Your task to perform on an android device: Go to accessibility settings Image 0: 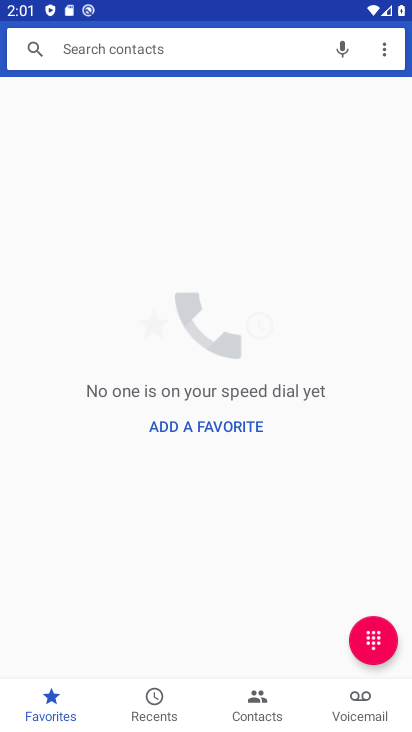
Step 0: press home button
Your task to perform on an android device: Go to accessibility settings Image 1: 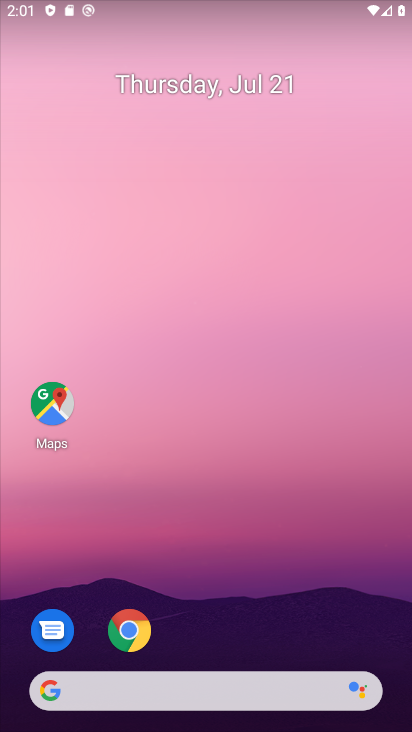
Step 1: click (376, 544)
Your task to perform on an android device: Go to accessibility settings Image 2: 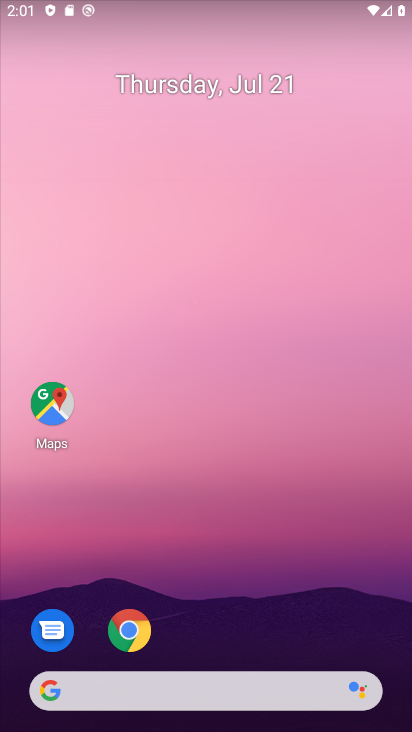
Step 2: click (376, 544)
Your task to perform on an android device: Go to accessibility settings Image 3: 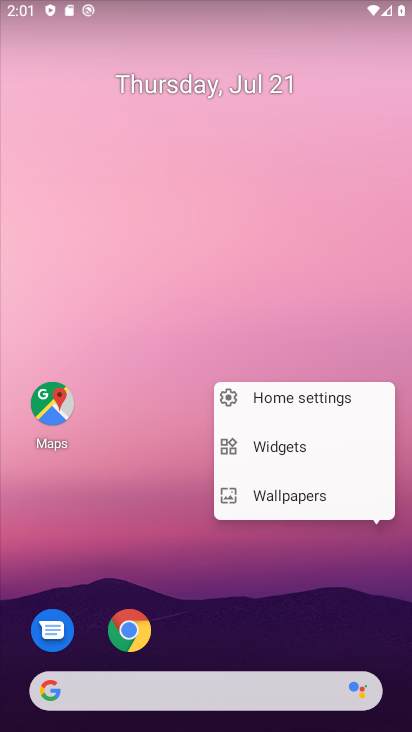
Step 3: drag from (375, 545) to (250, 2)
Your task to perform on an android device: Go to accessibility settings Image 4: 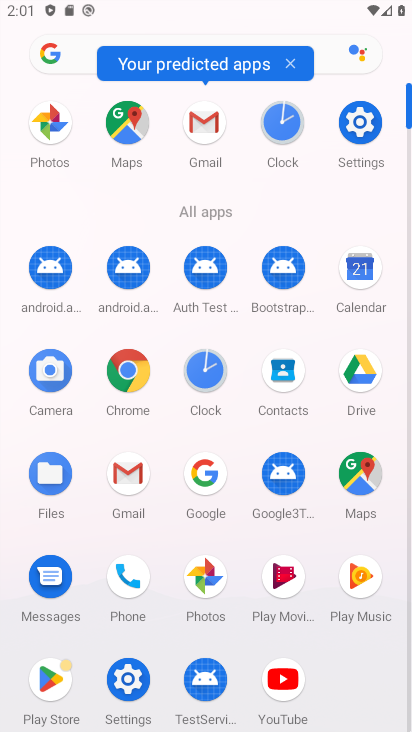
Step 4: click (128, 691)
Your task to perform on an android device: Go to accessibility settings Image 5: 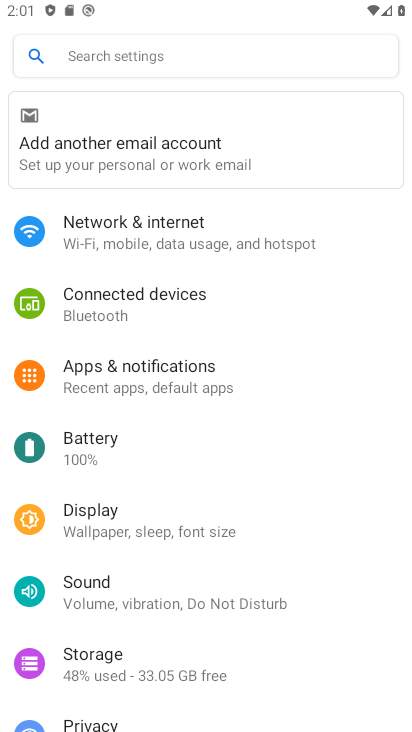
Step 5: drag from (128, 691) to (244, 374)
Your task to perform on an android device: Go to accessibility settings Image 6: 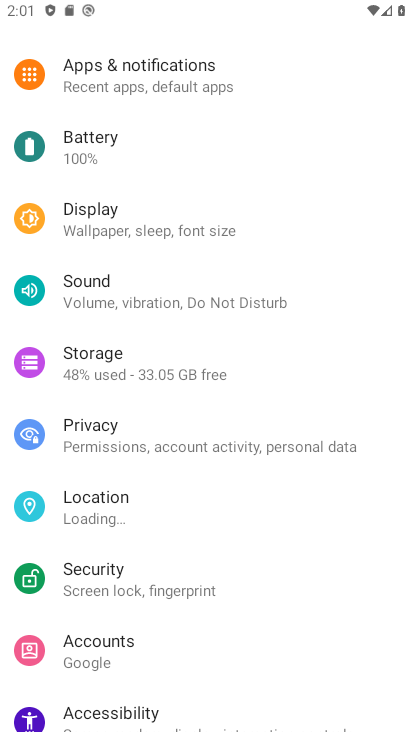
Step 6: click (142, 695)
Your task to perform on an android device: Go to accessibility settings Image 7: 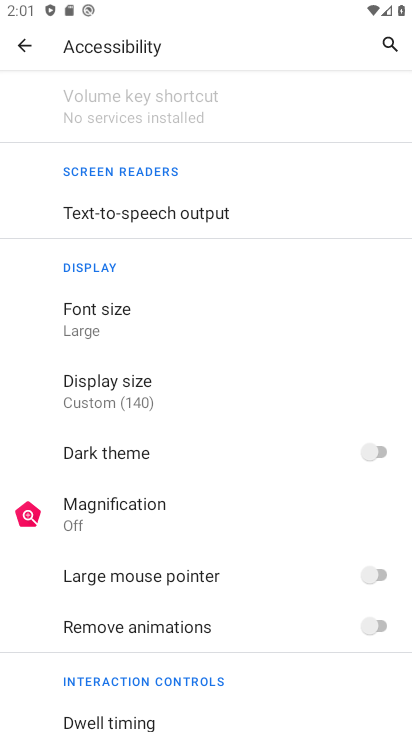
Step 7: task complete